Your task to perform on an android device: turn off sleep mode Image 0: 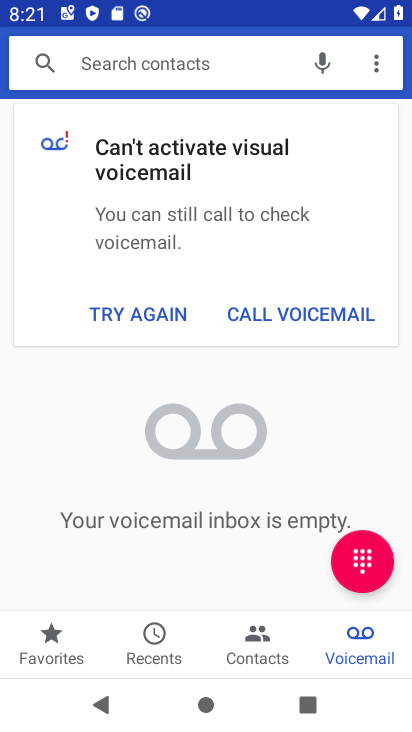
Step 0: press home button
Your task to perform on an android device: turn off sleep mode Image 1: 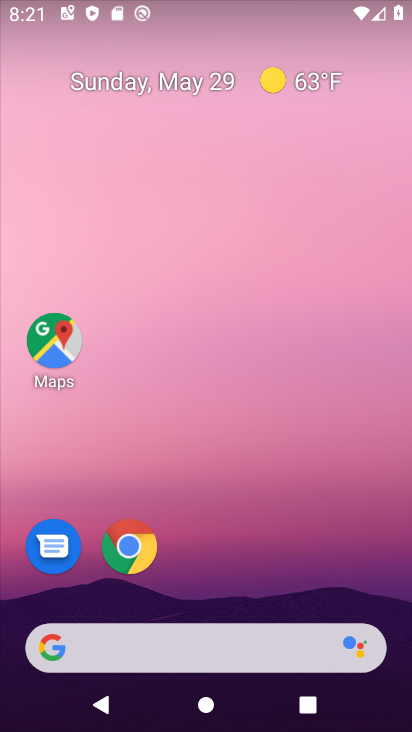
Step 1: drag from (120, 653) to (318, 25)
Your task to perform on an android device: turn off sleep mode Image 2: 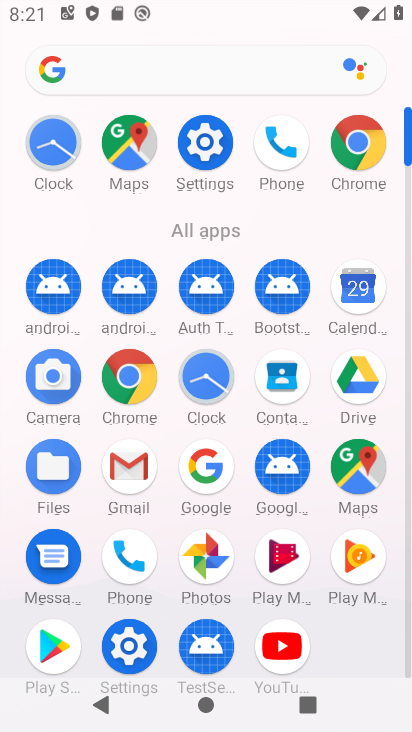
Step 2: click (205, 137)
Your task to perform on an android device: turn off sleep mode Image 3: 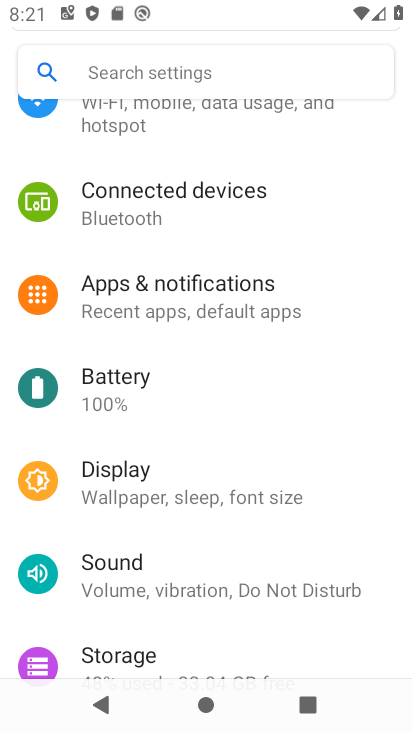
Step 3: click (127, 477)
Your task to perform on an android device: turn off sleep mode Image 4: 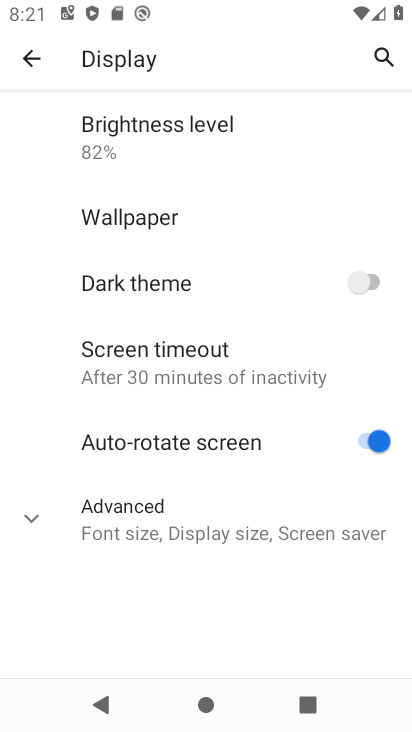
Step 4: task complete